Your task to perform on an android device: Go to sound settings Image 0: 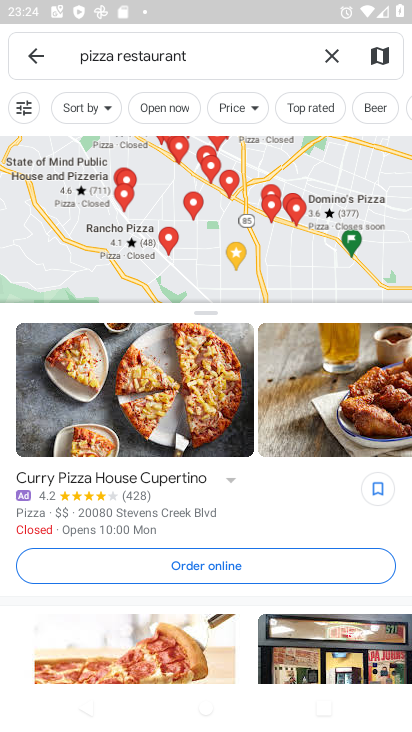
Step 0: press home button
Your task to perform on an android device: Go to sound settings Image 1: 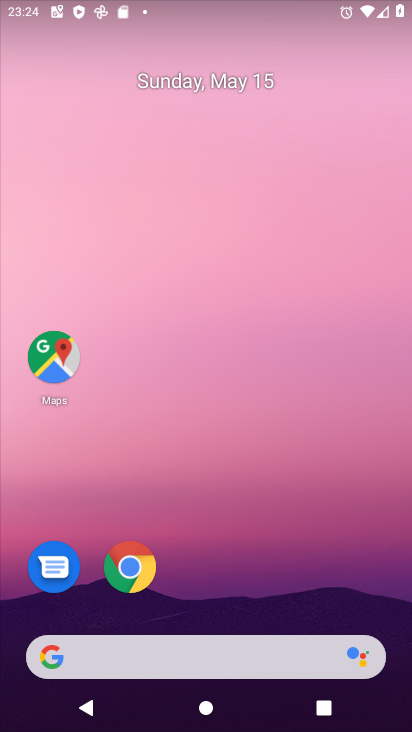
Step 1: drag from (264, 716) to (227, 125)
Your task to perform on an android device: Go to sound settings Image 2: 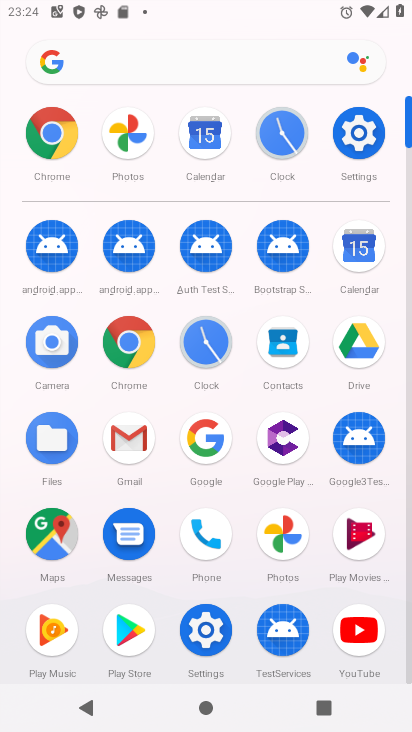
Step 2: click (347, 138)
Your task to perform on an android device: Go to sound settings Image 3: 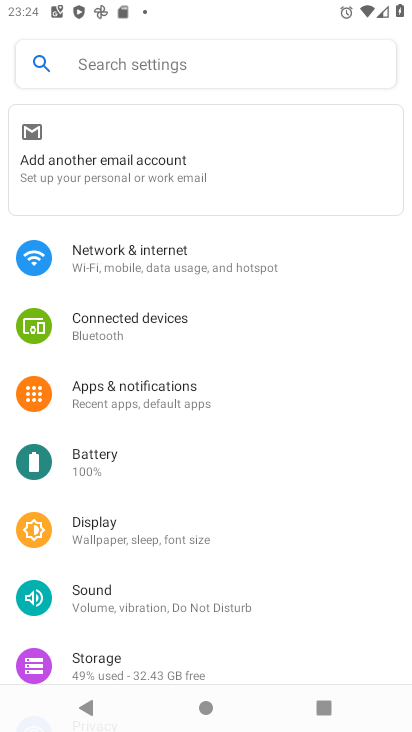
Step 3: click (193, 599)
Your task to perform on an android device: Go to sound settings Image 4: 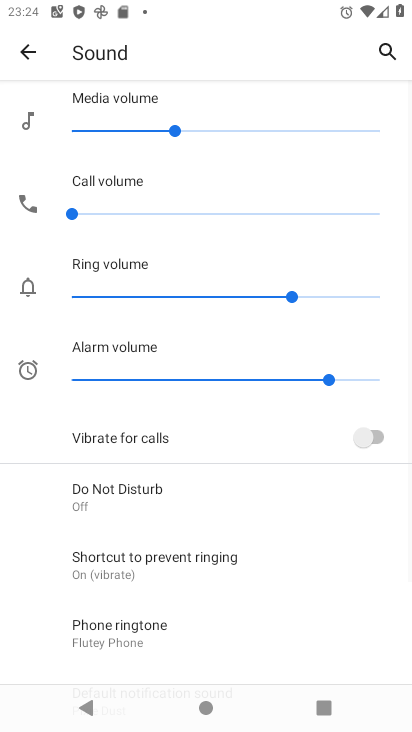
Step 4: task complete